Your task to perform on an android device: What's the weather going to be tomorrow? Image 0: 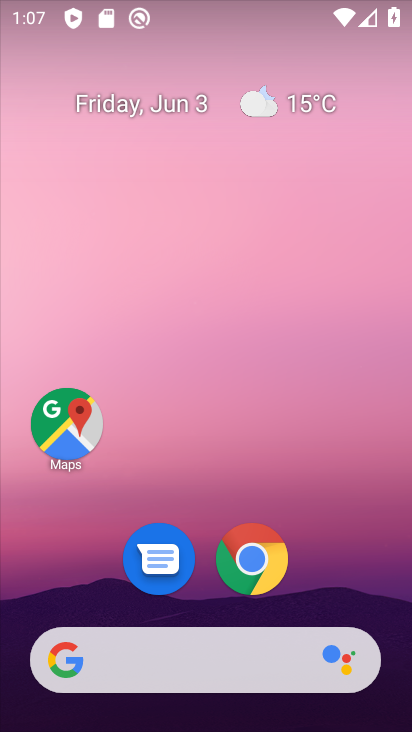
Step 0: click (308, 103)
Your task to perform on an android device: What's the weather going to be tomorrow? Image 1: 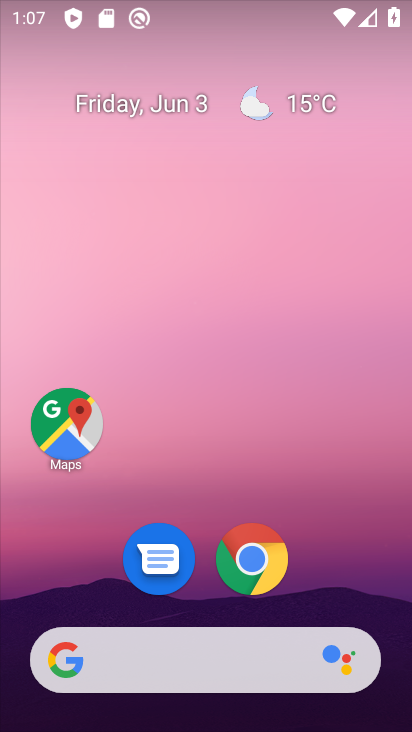
Step 1: click (306, 105)
Your task to perform on an android device: What's the weather going to be tomorrow? Image 2: 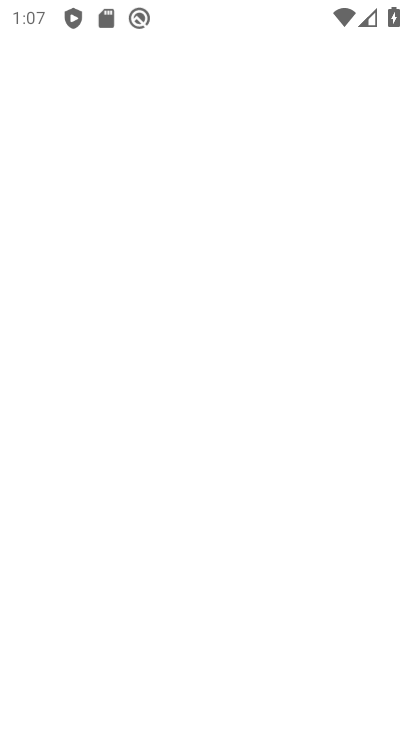
Step 2: click (237, 139)
Your task to perform on an android device: What's the weather going to be tomorrow? Image 3: 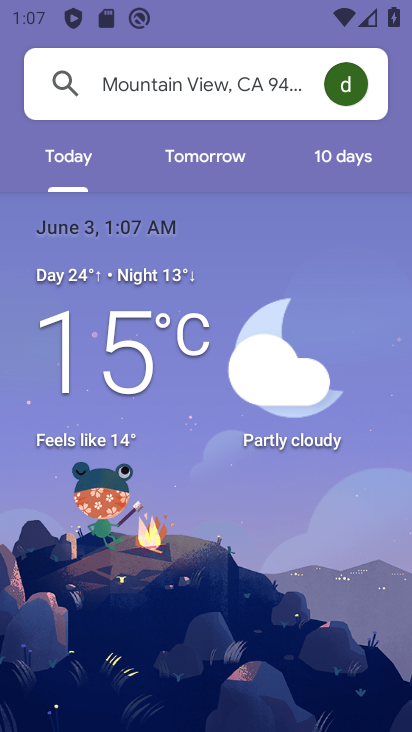
Step 3: click (223, 190)
Your task to perform on an android device: What's the weather going to be tomorrow? Image 4: 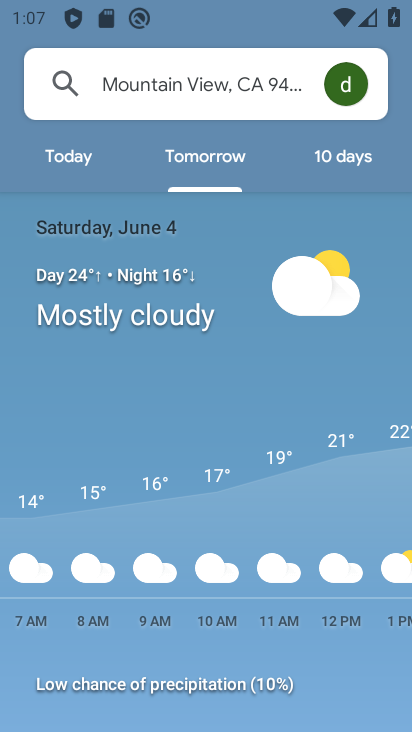
Step 4: task complete